Your task to perform on an android device: turn off location history Image 0: 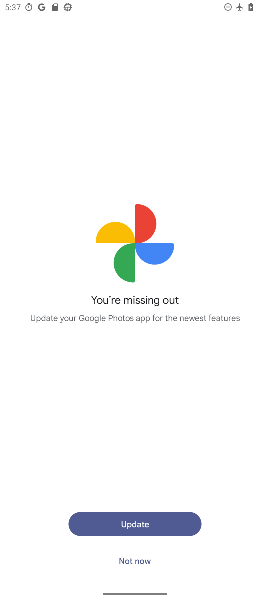
Step 0: click (202, 492)
Your task to perform on an android device: turn off location history Image 1: 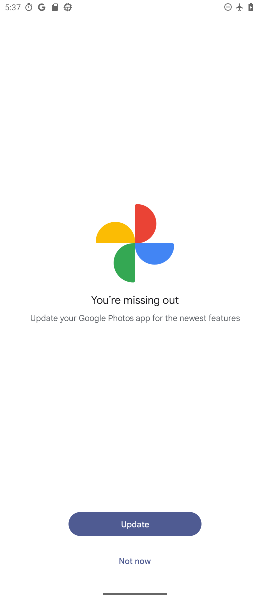
Step 1: drag from (194, 385) to (195, 228)
Your task to perform on an android device: turn off location history Image 2: 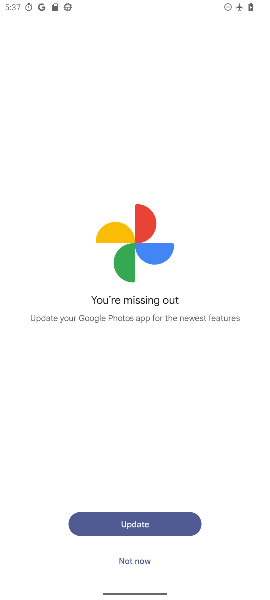
Step 2: press home button
Your task to perform on an android device: turn off location history Image 3: 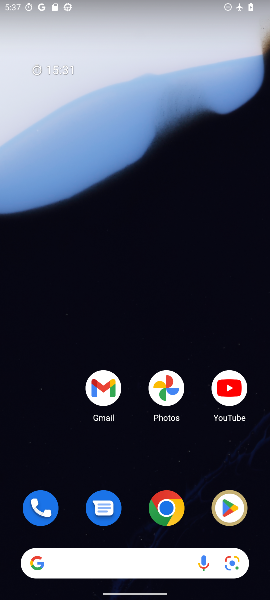
Step 3: drag from (146, 536) to (145, 45)
Your task to perform on an android device: turn off location history Image 4: 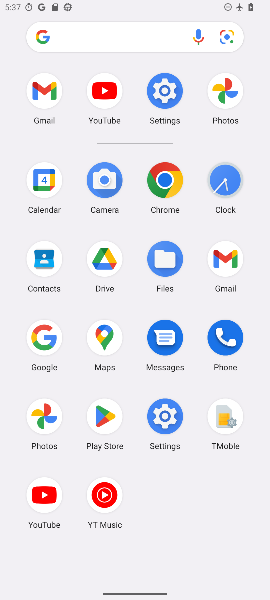
Step 4: drag from (131, 474) to (149, 265)
Your task to perform on an android device: turn off location history Image 5: 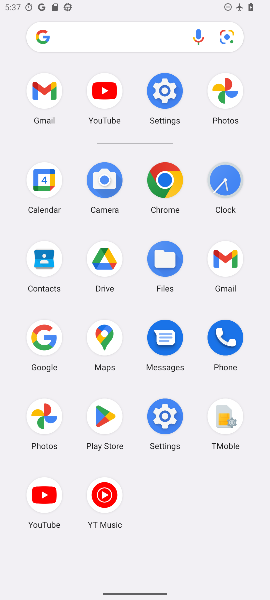
Step 5: click (165, 405)
Your task to perform on an android device: turn off location history Image 6: 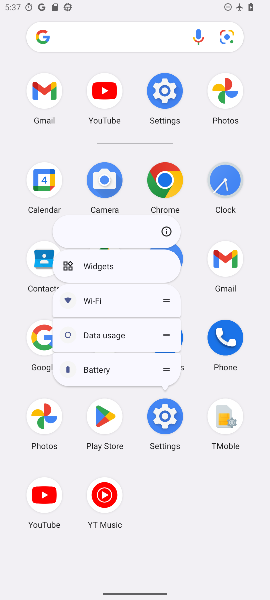
Step 6: click (159, 230)
Your task to perform on an android device: turn off location history Image 7: 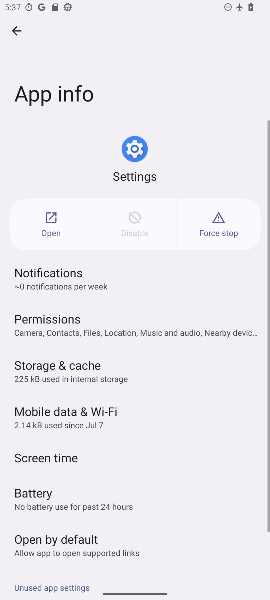
Step 7: click (50, 220)
Your task to perform on an android device: turn off location history Image 8: 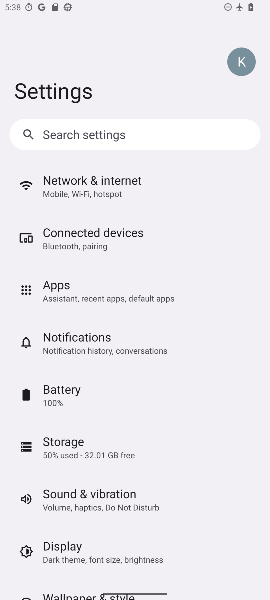
Step 8: drag from (174, 513) to (158, 305)
Your task to perform on an android device: turn off location history Image 9: 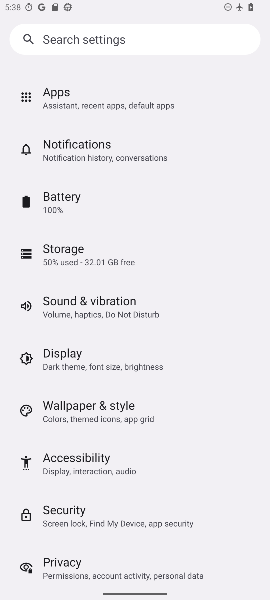
Step 9: drag from (145, 542) to (151, 351)
Your task to perform on an android device: turn off location history Image 10: 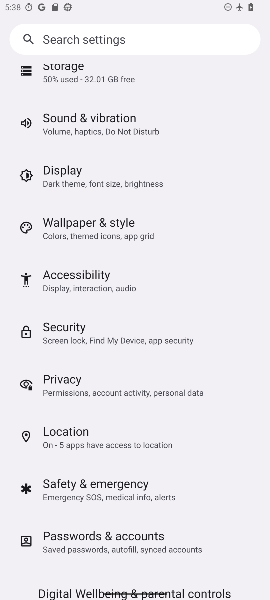
Step 10: drag from (141, 491) to (160, 332)
Your task to perform on an android device: turn off location history Image 11: 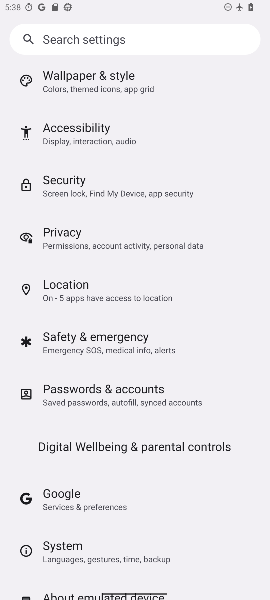
Step 11: drag from (153, 519) to (143, 408)
Your task to perform on an android device: turn off location history Image 12: 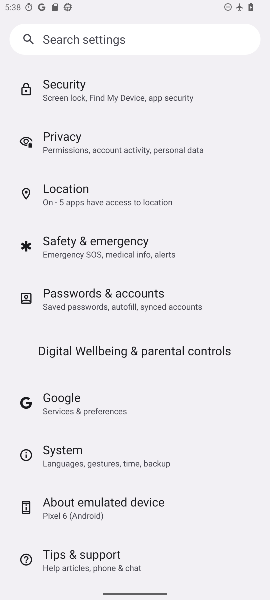
Step 12: drag from (141, 531) to (157, 342)
Your task to perform on an android device: turn off location history Image 13: 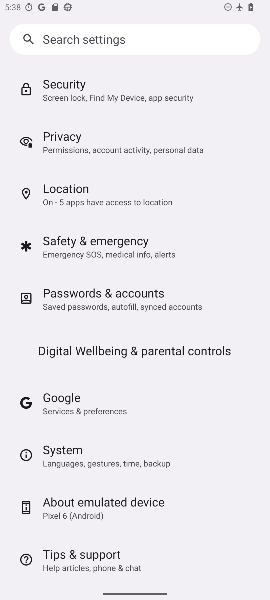
Step 13: click (80, 185)
Your task to perform on an android device: turn off location history Image 14: 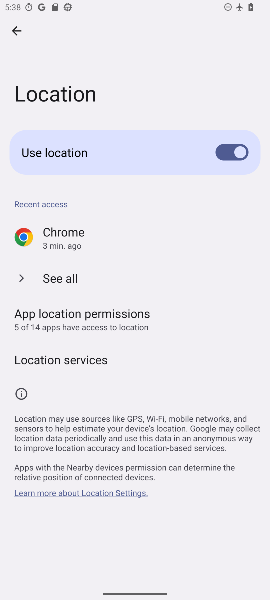
Step 14: click (63, 365)
Your task to perform on an android device: turn off location history Image 15: 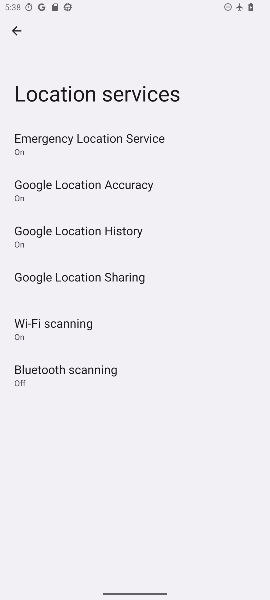
Step 15: click (153, 221)
Your task to perform on an android device: turn off location history Image 16: 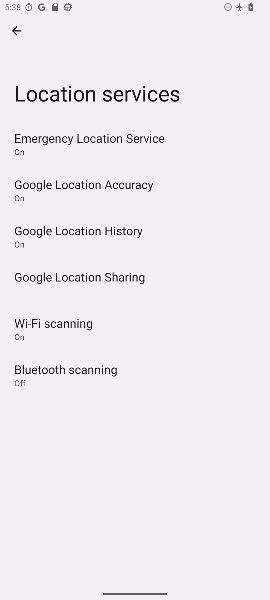
Step 16: click (153, 221)
Your task to perform on an android device: turn off location history Image 17: 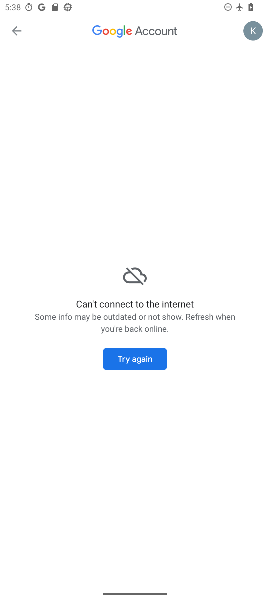
Step 17: task complete